Your task to perform on an android device: Go to Maps Image 0: 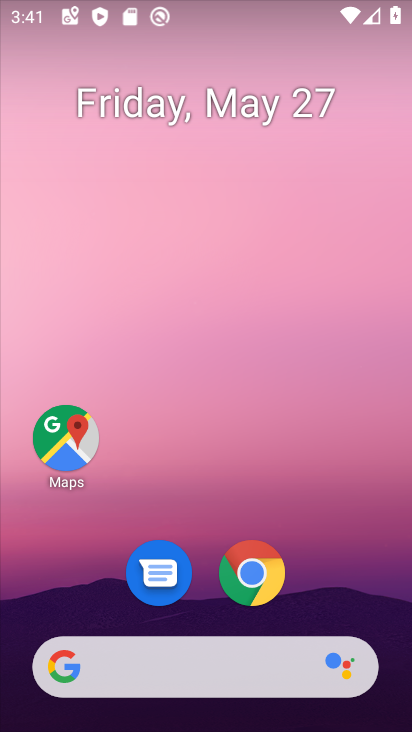
Step 0: click (70, 429)
Your task to perform on an android device: Go to Maps Image 1: 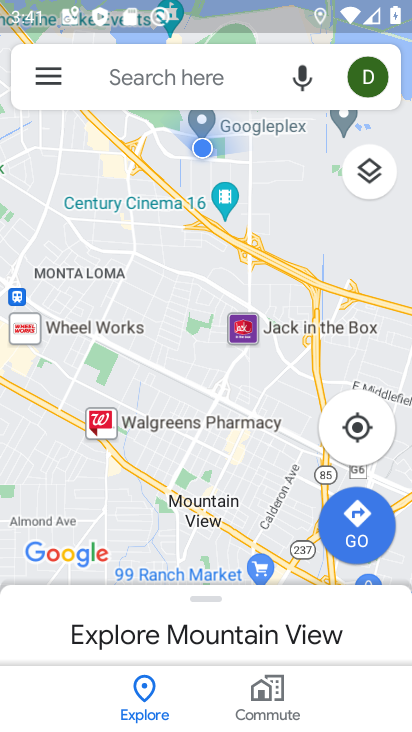
Step 1: task complete